Your task to perform on an android device: change your default location settings in chrome Image 0: 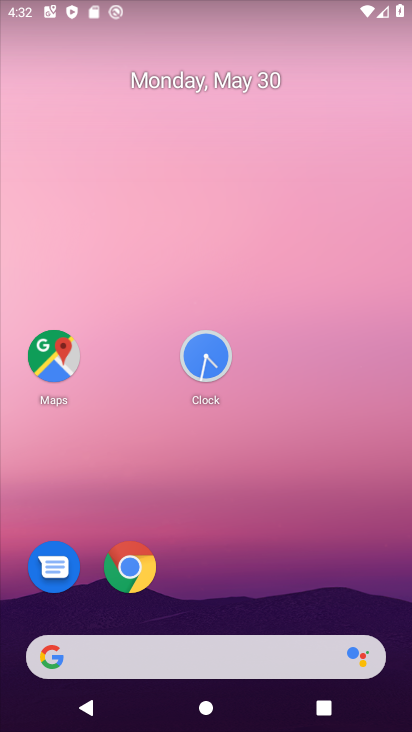
Step 0: drag from (298, 645) to (268, 0)
Your task to perform on an android device: change your default location settings in chrome Image 1: 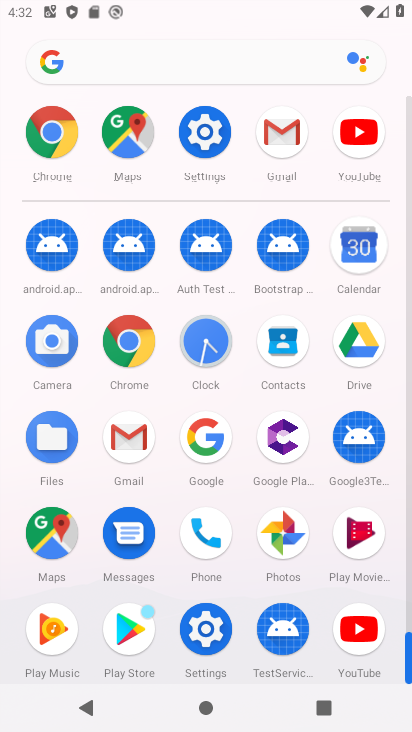
Step 1: click (128, 331)
Your task to perform on an android device: change your default location settings in chrome Image 2: 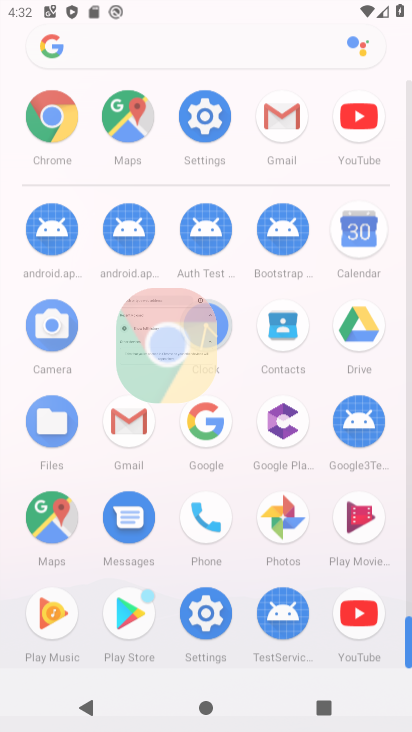
Step 2: click (128, 332)
Your task to perform on an android device: change your default location settings in chrome Image 3: 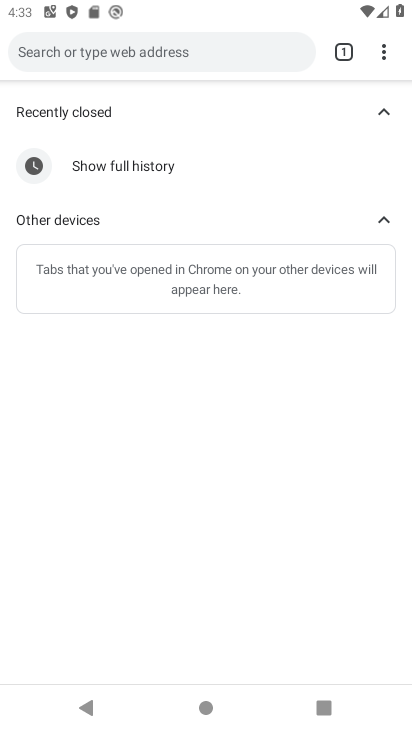
Step 3: drag from (381, 52) to (180, 442)
Your task to perform on an android device: change your default location settings in chrome Image 4: 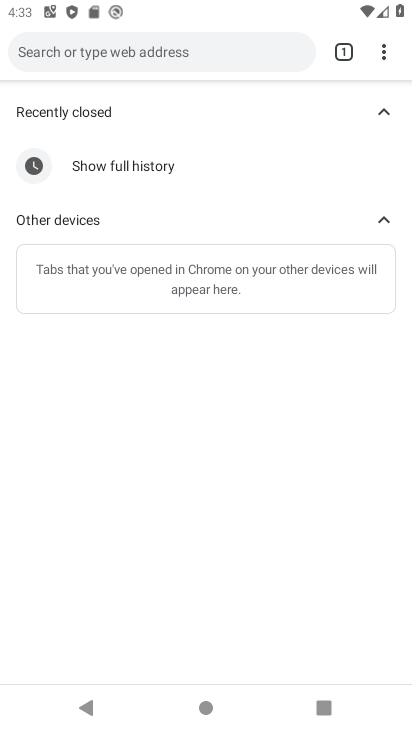
Step 4: click (181, 441)
Your task to perform on an android device: change your default location settings in chrome Image 5: 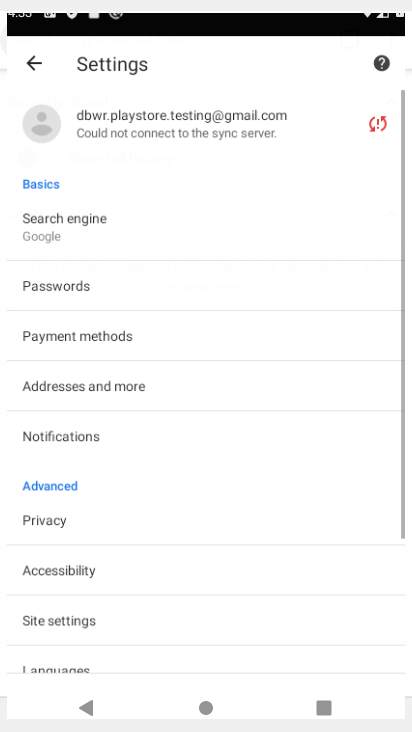
Step 5: click (182, 441)
Your task to perform on an android device: change your default location settings in chrome Image 6: 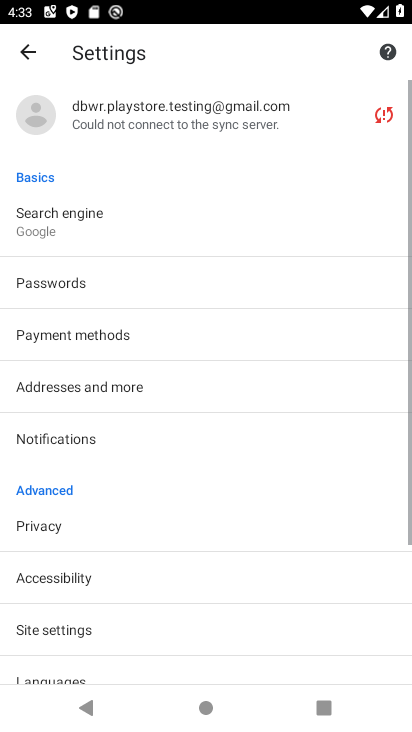
Step 6: click (189, 437)
Your task to perform on an android device: change your default location settings in chrome Image 7: 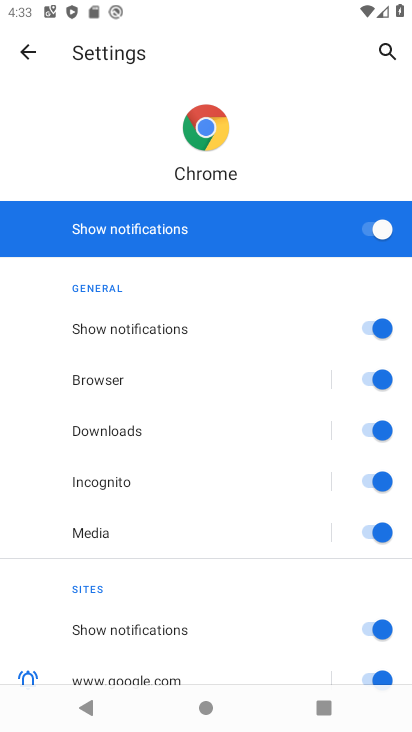
Step 7: click (28, 49)
Your task to perform on an android device: change your default location settings in chrome Image 8: 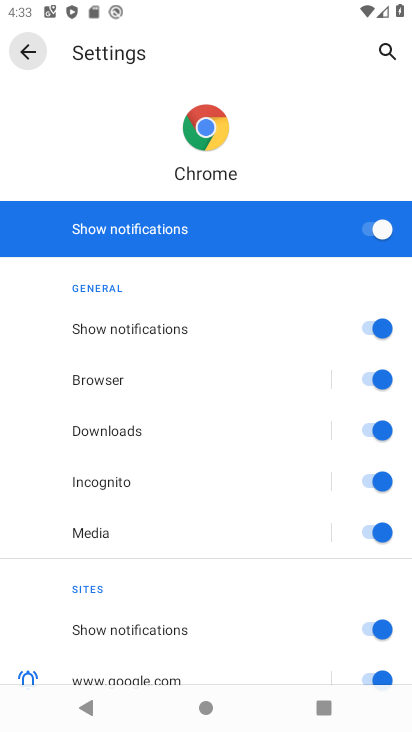
Step 8: click (28, 49)
Your task to perform on an android device: change your default location settings in chrome Image 9: 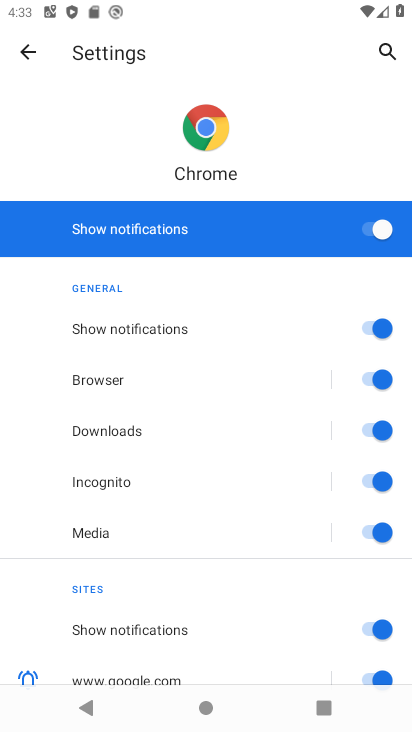
Step 9: click (25, 52)
Your task to perform on an android device: change your default location settings in chrome Image 10: 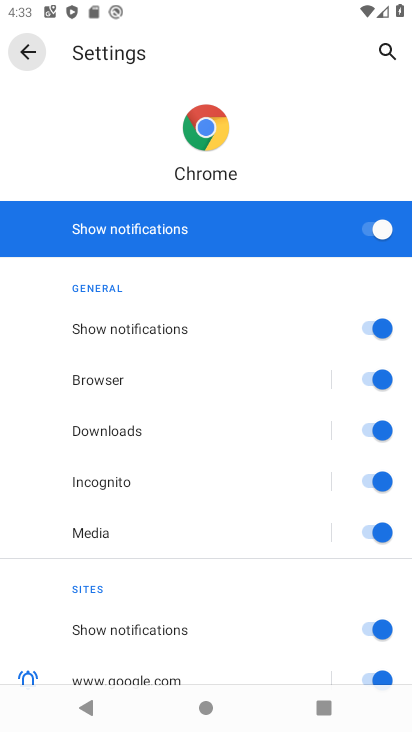
Step 10: click (25, 52)
Your task to perform on an android device: change your default location settings in chrome Image 11: 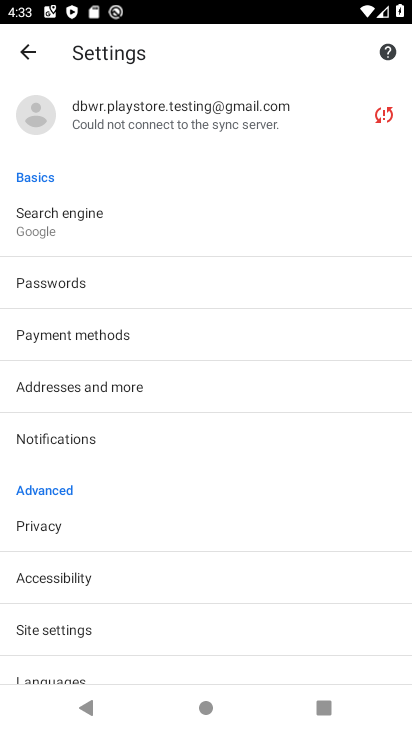
Step 11: drag from (54, 597) to (51, 308)
Your task to perform on an android device: change your default location settings in chrome Image 12: 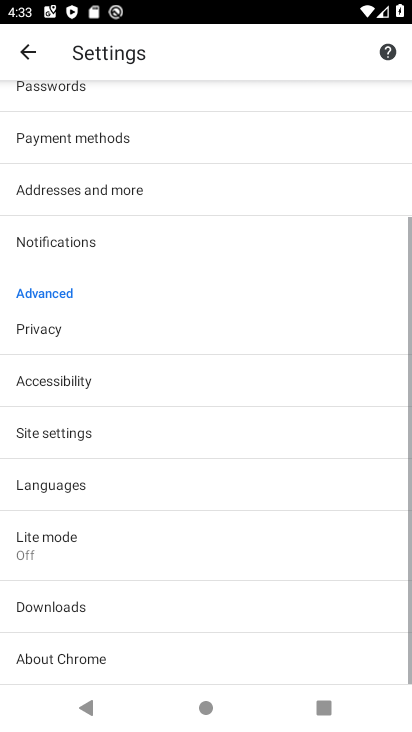
Step 12: drag from (91, 248) to (106, 139)
Your task to perform on an android device: change your default location settings in chrome Image 13: 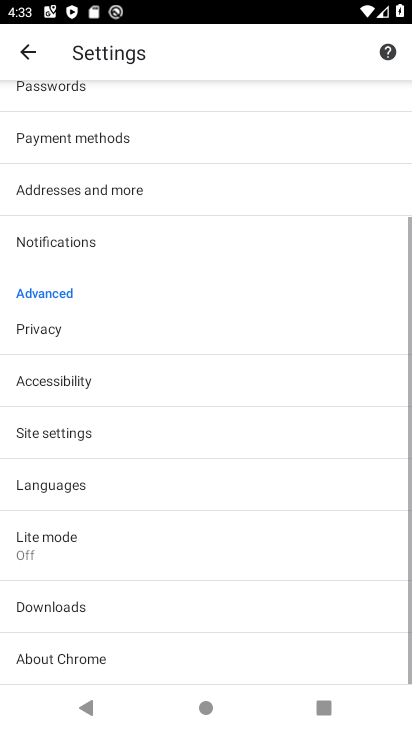
Step 13: drag from (109, 412) to (113, 200)
Your task to perform on an android device: change your default location settings in chrome Image 14: 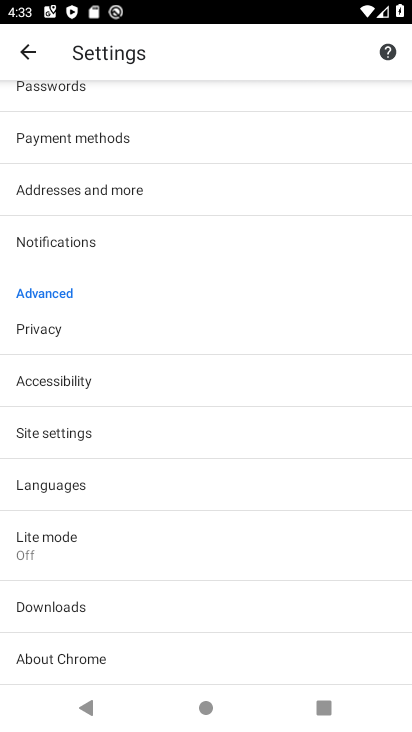
Step 14: click (44, 431)
Your task to perform on an android device: change your default location settings in chrome Image 15: 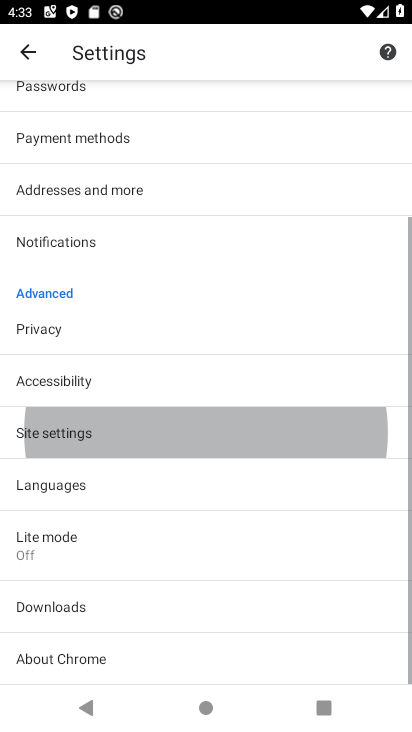
Step 15: click (44, 431)
Your task to perform on an android device: change your default location settings in chrome Image 16: 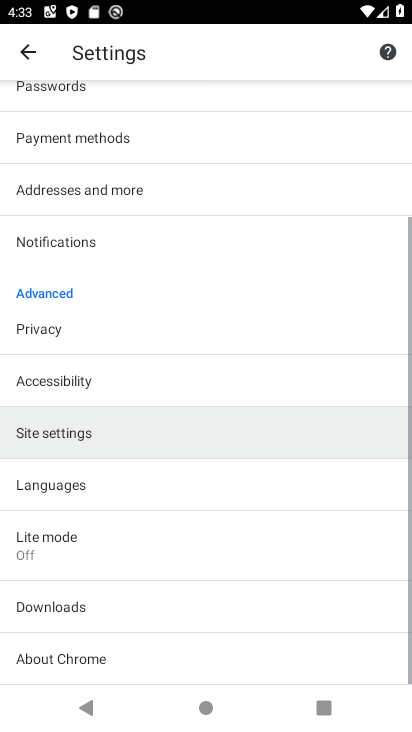
Step 16: click (48, 426)
Your task to perform on an android device: change your default location settings in chrome Image 17: 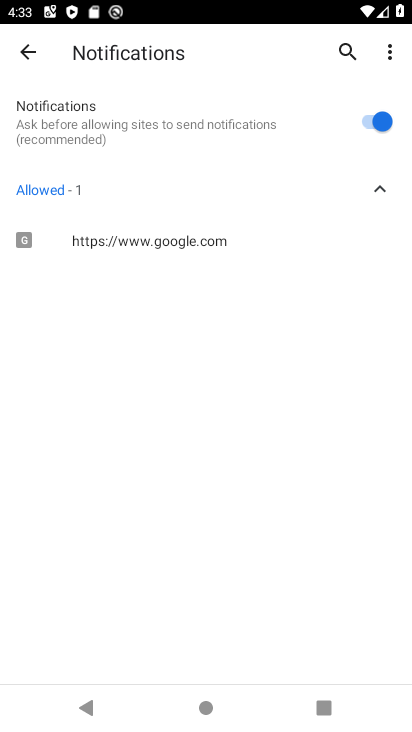
Step 17: click (23, 47)
Your task to perform on an android device: change your default location settings in chrome Image 18: 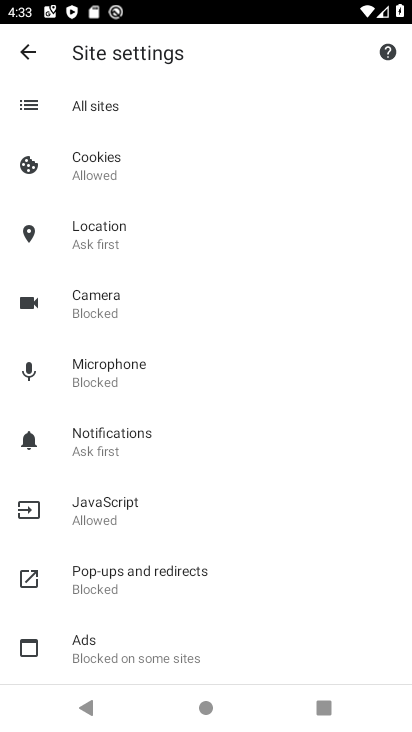
Step 18: click (95, 226)
Your task to perform on an android device: change your default location settings in chrome Image 19: 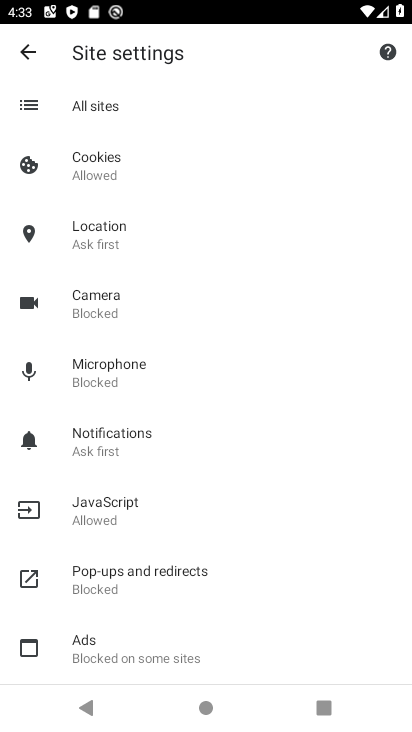
Step 19: click (95, 226)
Your task to perform on an android device: change your default location settings in chrome Image 20: 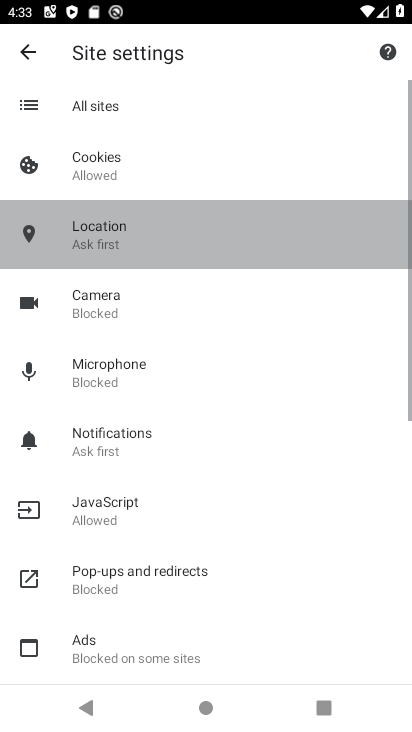
Step 20: click (95, 226)
Your task to perform on an android device: change your default location settings in chrome Image 21: 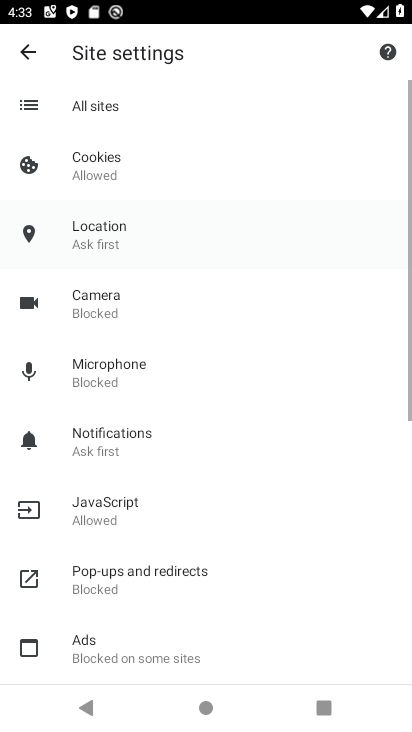
Step 21: click (95, 226)
Your task to perform on an android device: change your default location settings in chrome Image 22: 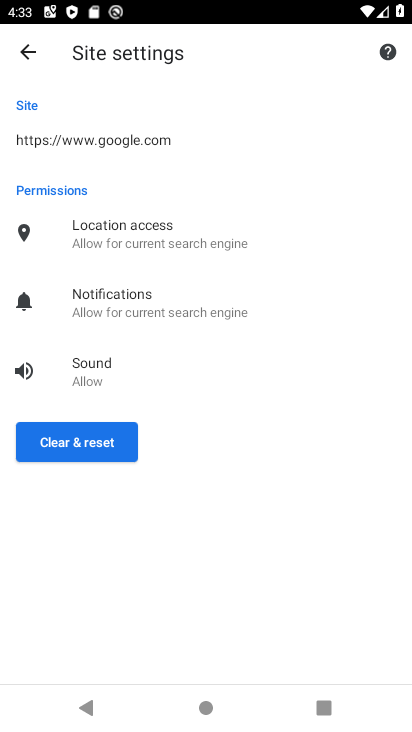
Step 22: task complete